Your task to perform on an android device: turn off smart reply in the gmail app Image 0: 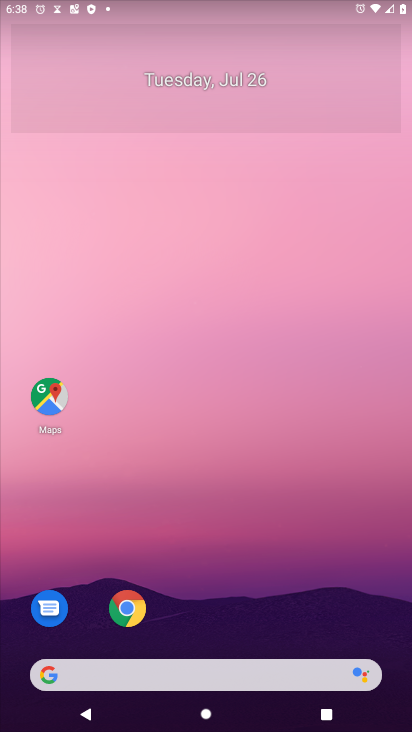
Step 0: drag from (205, 626) to (306, 2)
Your task to perform on an android device: turn off smart reply in the gmail app Image 1: 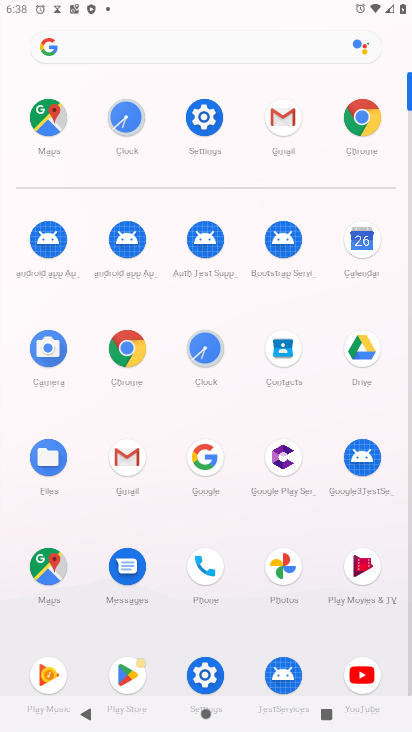
Step 1: click (291, 118)
Your task to perform on an android device: turn off smart reply in the gmail app Image 2: 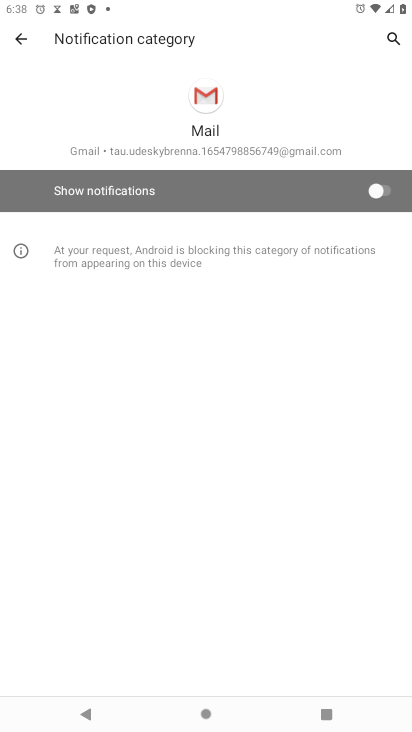
Step 2: click (21, 43)
Your task to perform on an android device: turn off smart reply in the gmail app Image 3: 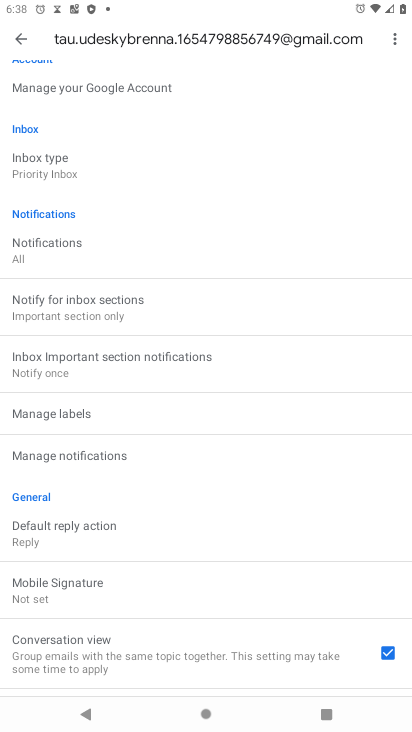
Step 3: task complete